Your task to perform on an android device: check storage Image 0: 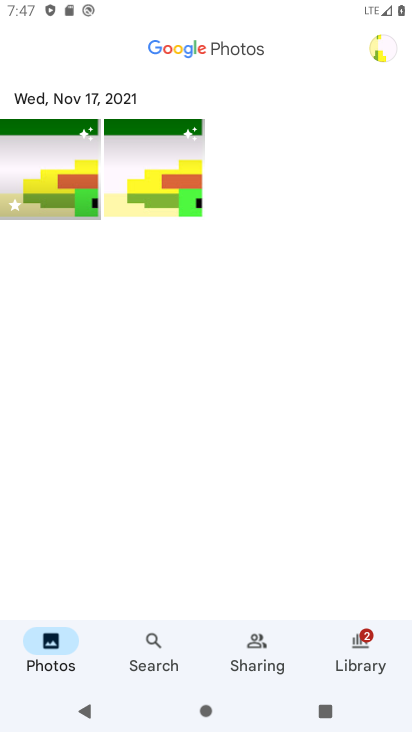
Step 0: press home button
Your task to perform on an android device: check storage Image 1: 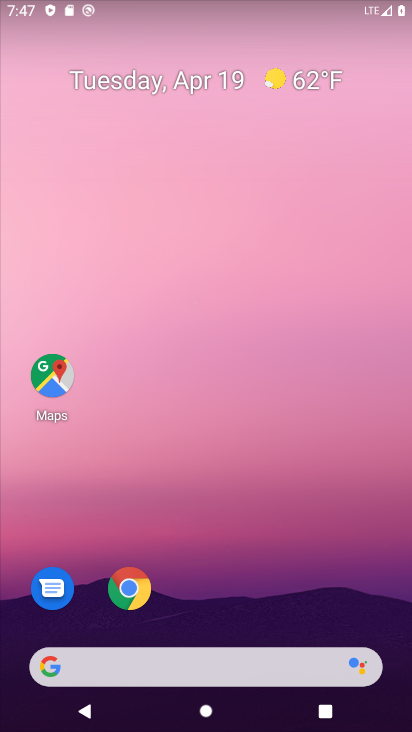
Step 1: drag from (231, 596) to (192, 17)
Your task to perform on an android device: check storage Image 2: 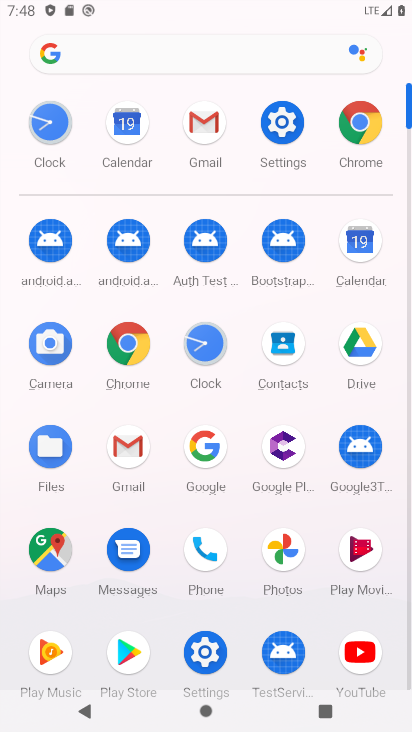
Step 2: click (277, 124)
Your task to perform on an android device: check storage Image 3: 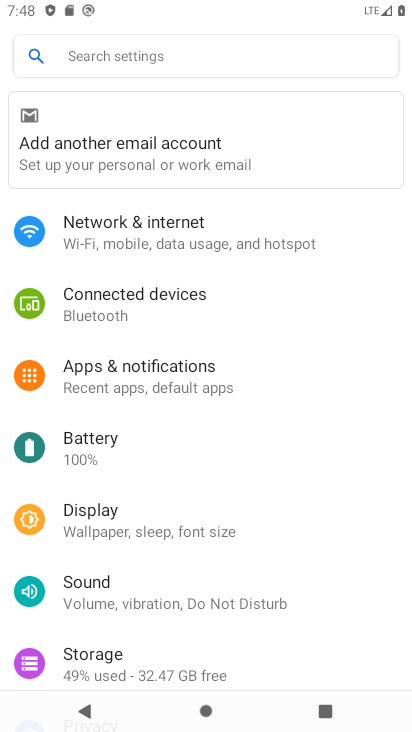
Step 3: click (91, 661)
Your task to perform on an android device: check storage Image 4: 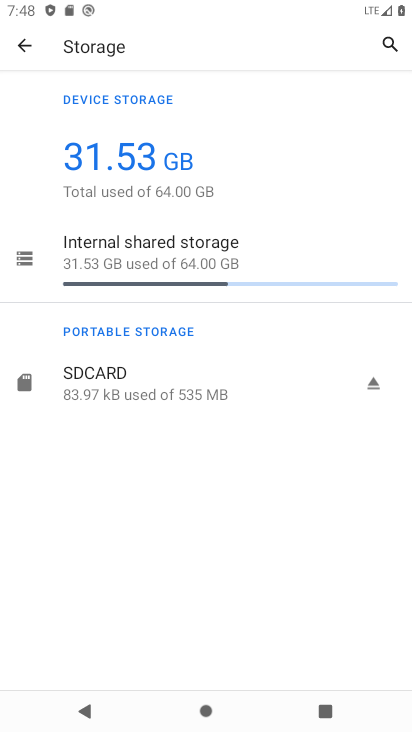
Step 4: task complete